Your task to perform on an android device: Go to Yahoo.com Image 0: 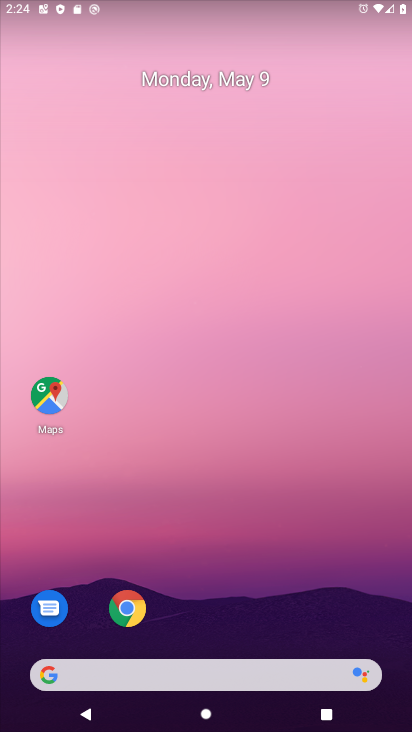
Step 0: click (126, 608)
Your task to perform on an android device: Go to Yahoo.com Image 1: 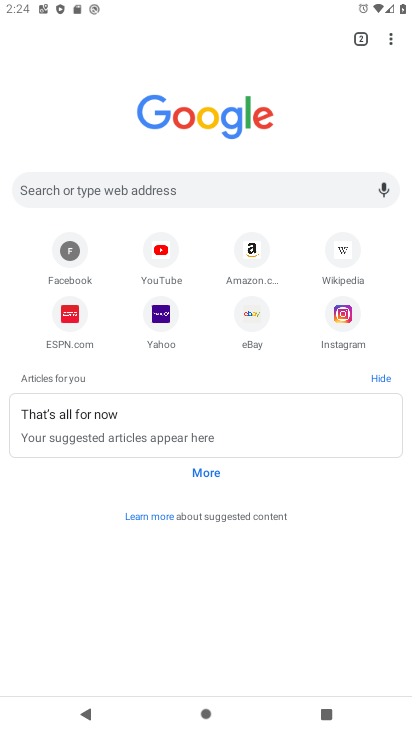
Step 1: click (167, 338)
Your task to perform on an android device: Go to Yahoo.com Image 2: 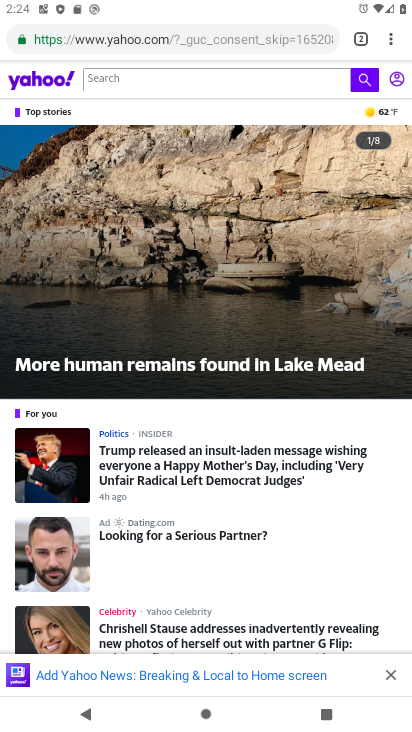
Step 2: task complete